Your task to perform on an android device: Open battery settings Image 0: 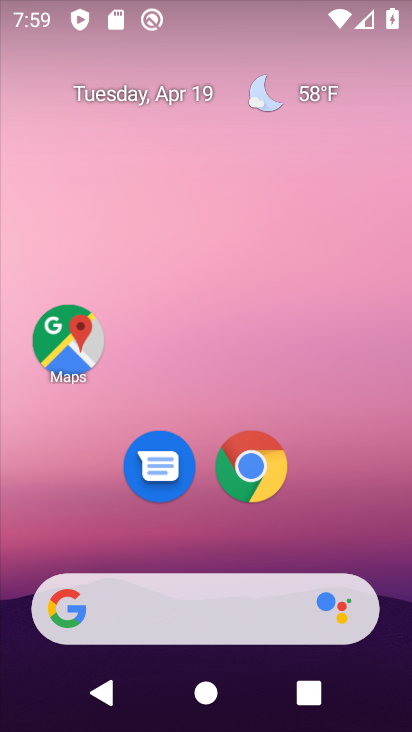
Step 0: drag from (292, 205) to (297, 145)
Your task to perform on an android device: Open battery settings Image 1: 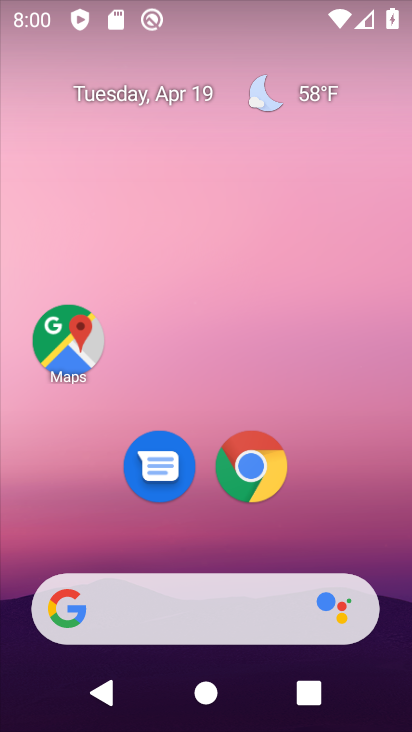
Step 1: click (338, 388)
Your task to perform on an android device: Open battery settings Image 2: 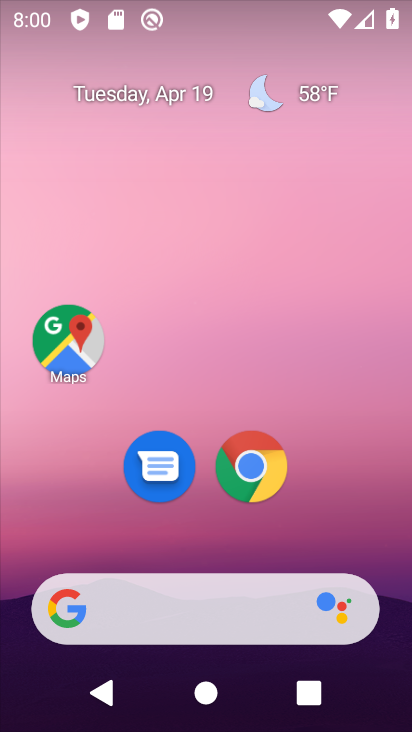
Step 2: drag from (213, 540) to (267, 194)
Your task to perform on an android device: Open battery settings Image 3: 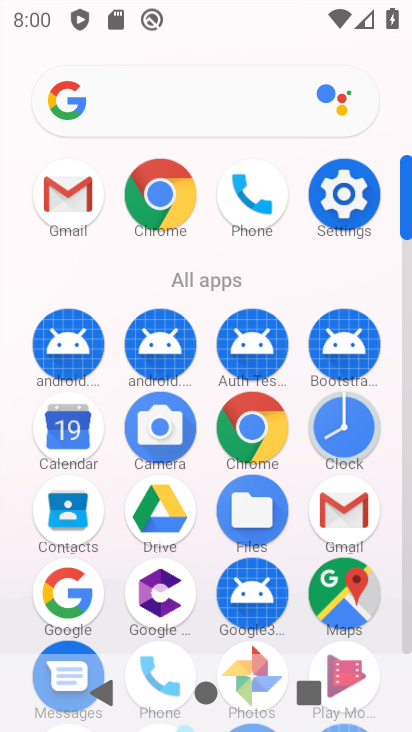
Step 3: click (328, 194)
Your task to perform on an android device: Open battery settings Image 4: 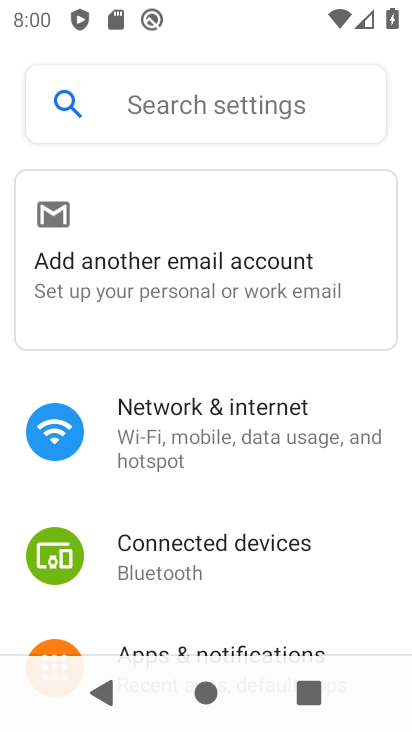
Step 4: drag from (269, 556) to (246, 128)
Your task to perform on an android device: Open battery settings Image 5: 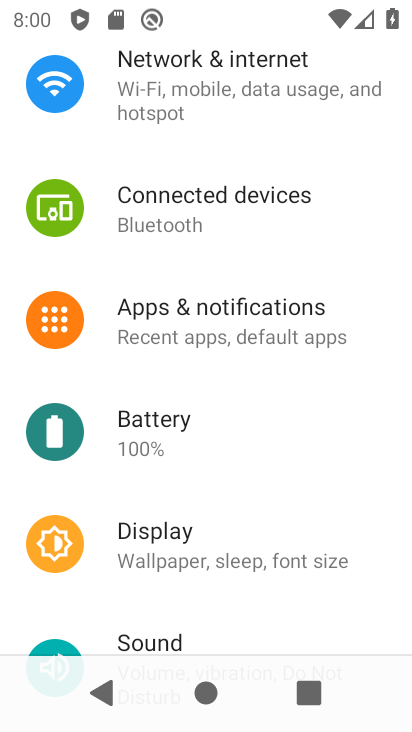
Step 5: click (169, 419)
Your task to perform on an android device: Open battery settings Image 6: 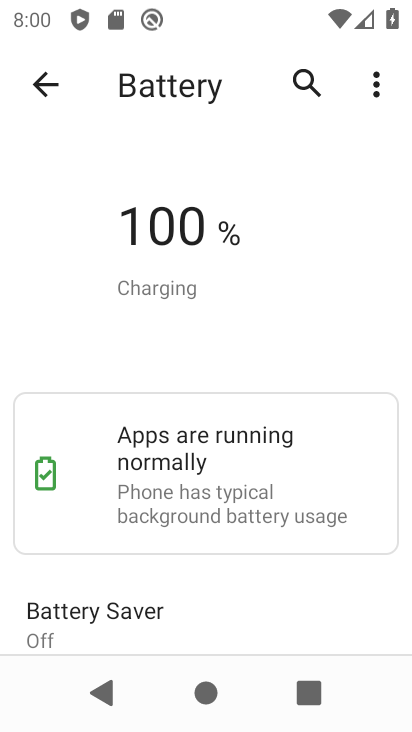
Step 6: task complete